Your task to perform on an android device: Search for sushi restaurants on Maps Image 0: 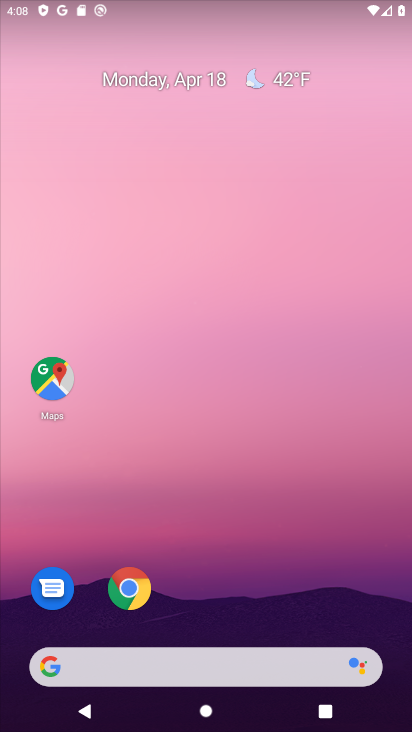
Step 0: click (64, 384)
Your task to perform on an android device: Search for sushi restaurants on Maps Image 1: 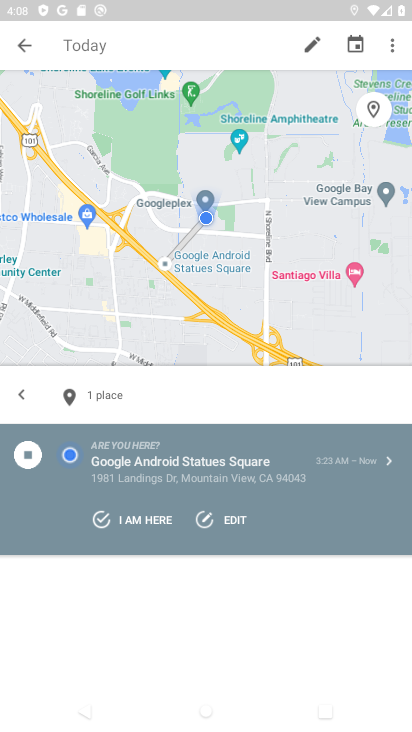
Step 1: press back button
Your task to perform on an android device: Search for sushi restaurants on Maps Image 2: 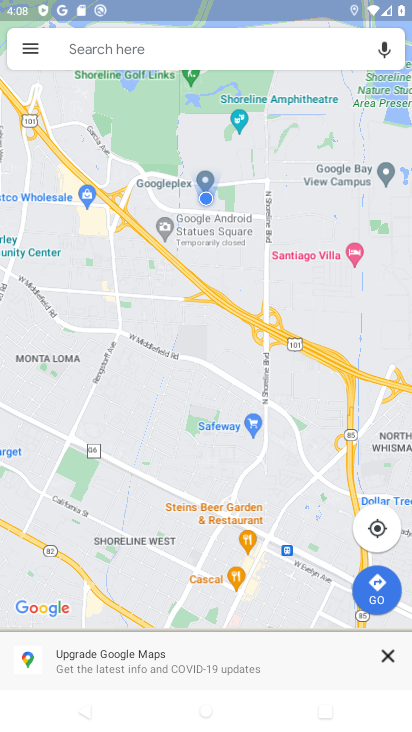
Step 2: click (146, 57)
Your task to perform on an android device: Search for sushi restaurants on Maps Image 3: 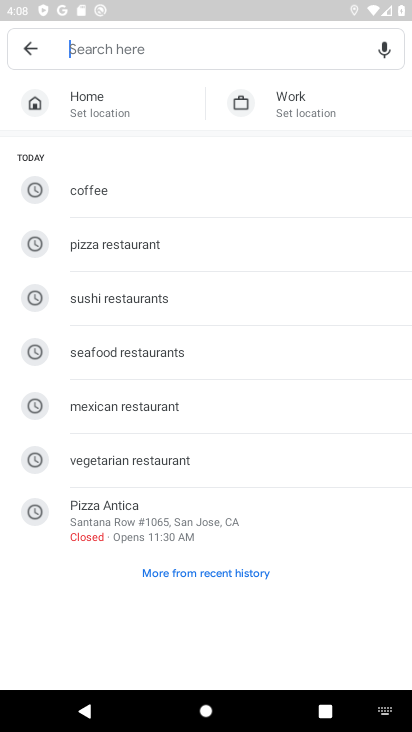
Step 3: click (126, 309)
Your task to perform on an android device: Search for sushi restaurants on Maps Image 4: 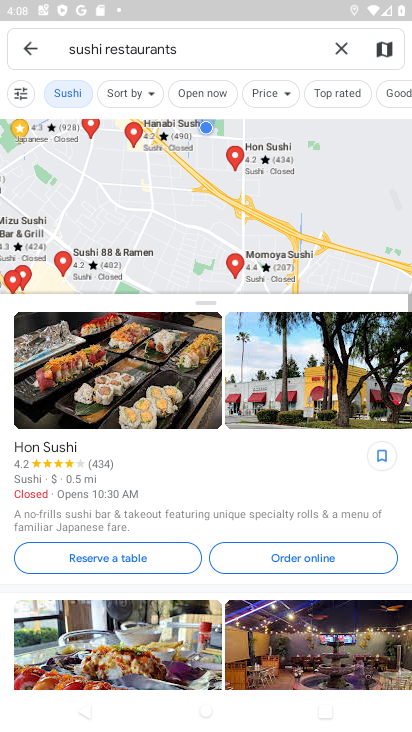
Step 4: task complete